Your task to perform on an android device: Toggle the flashlight Image 0: 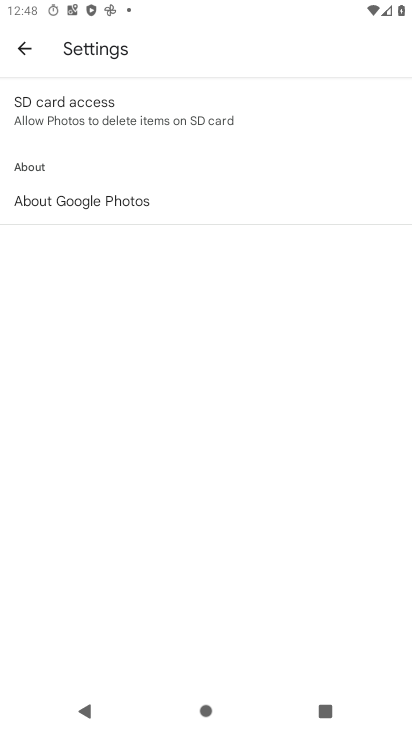
Step 0: press home button
Your task to perform on an android device: Toggle the flashlight Image 1: 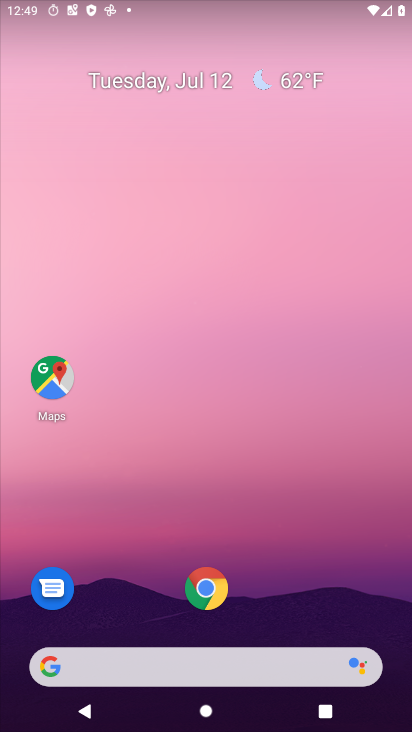
Step 1: drag from (244, 355) to (244, 281)
Your task to perform on an android device: Toggle the flashlight Image 2: 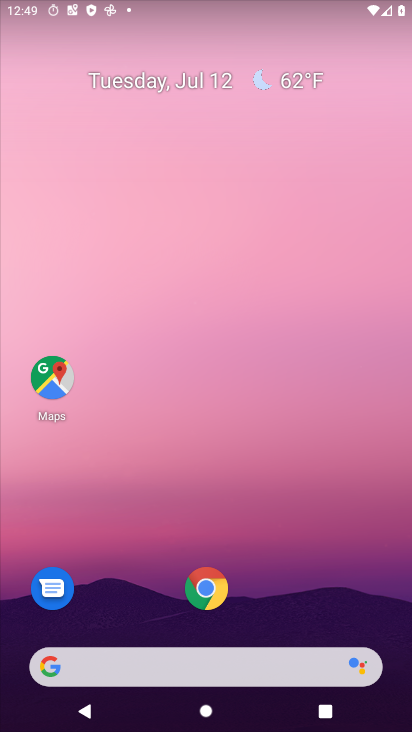
Step 2: click (224, 297)
Your task to perform on an android device: Toggle the flashlight Image 3: 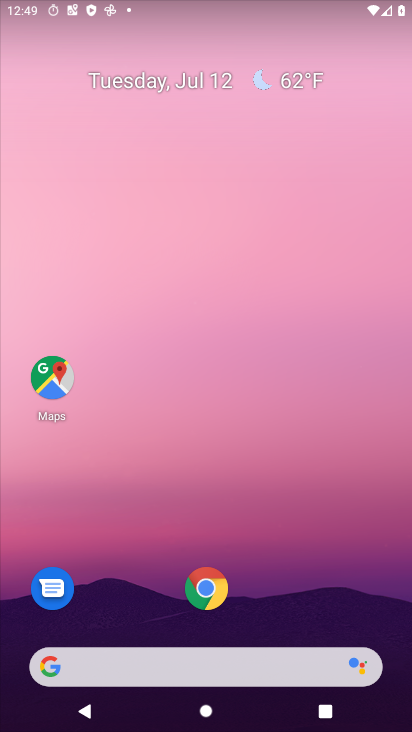
Step 3: drag from (234, 610) to (201, 24)
Your task to perform on an android device: Toggle the flashlight Image 4: 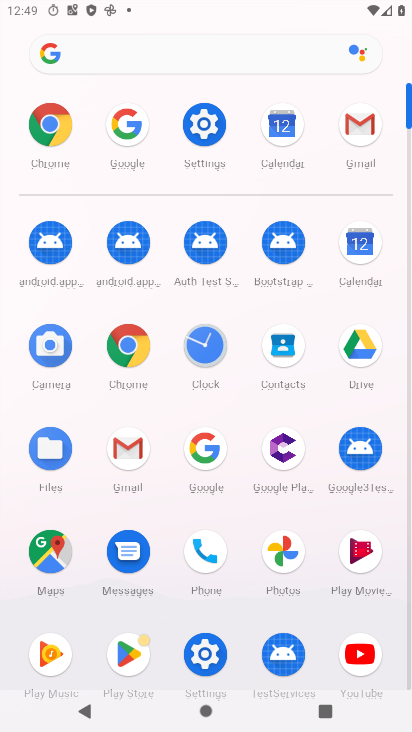
Step 4: click (206, 126)
Your task to perform on an android device: Toggle the flashlight Image 5: 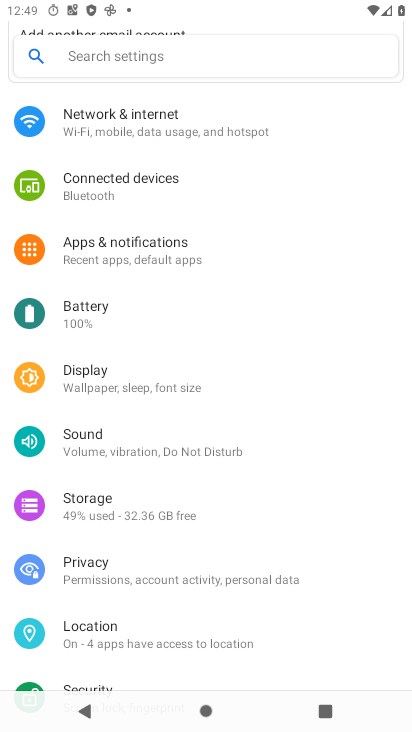
Step 5: task complete